Your task to perform on an android device: Open Reddit.com Image 0: 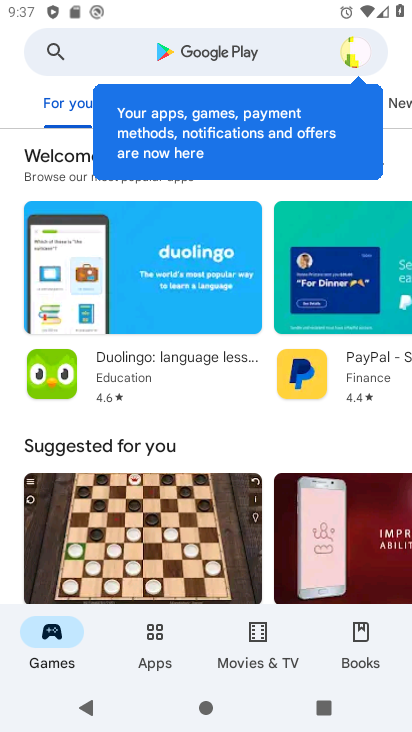
Step 0: press home button
Your task to perform on an android device: Open Reddit.com Image 1: 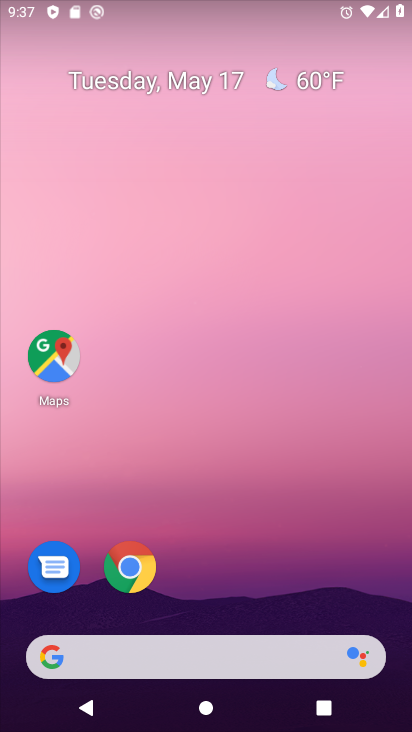
Step 1: drag from (192, 617) to (167, 233)
Your task to perform on an android device: Open Reddit.com Image 2: 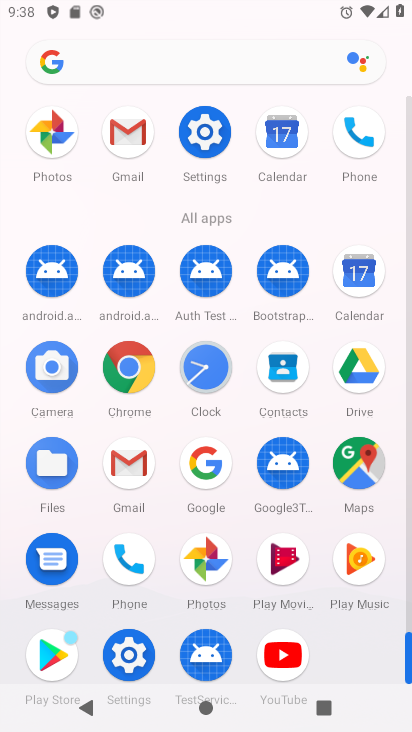
Step 2: click (139, 408)
Your task to perform on an android device: Open Reddit.com Image 3: 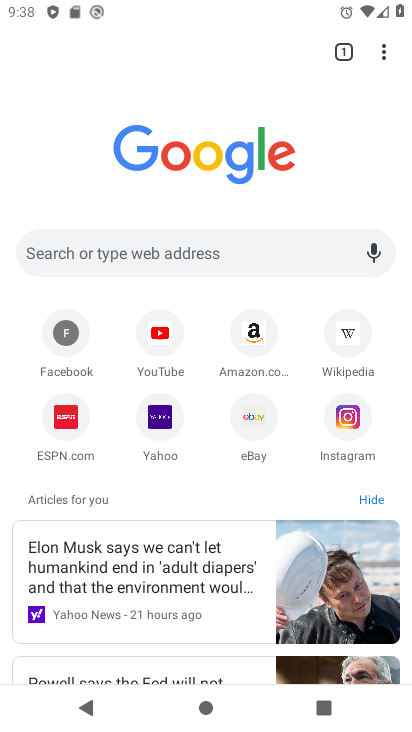
Step 3: click (159, 246)
Your task to perform on an android device: Open Reddit.com Image 4: 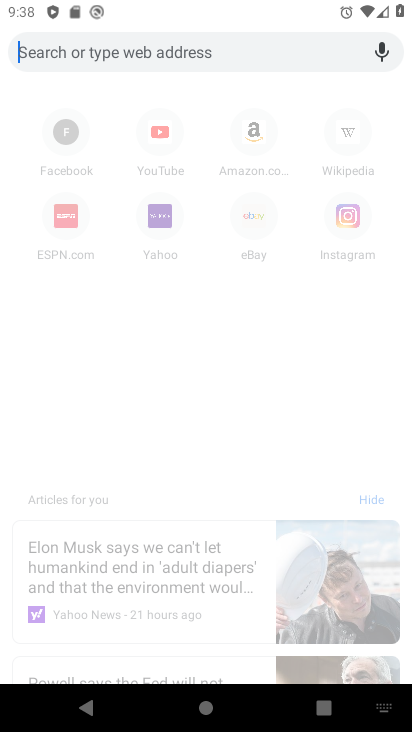
Step 4: type "www.reddit.com"
Your task to perform on an android device: Open Reddit.com Image 5: 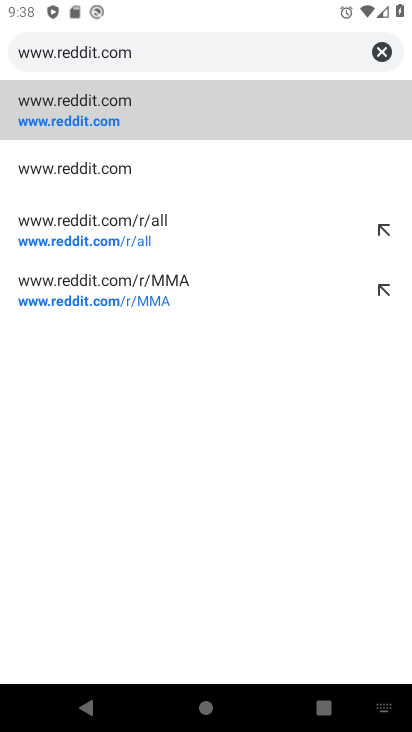
Step 5: click (105, 114)
Your task to perform on an android device: Open Reddit.com Image 6: 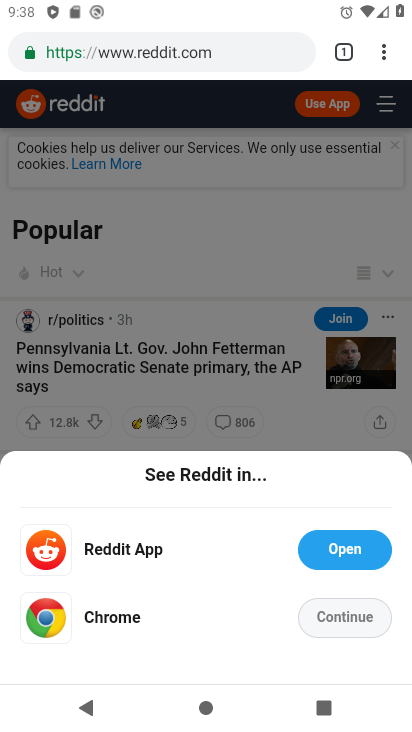
Step 6: click (342, 620)
Your task to perform on an android device: Open Reddit.com Image 7: 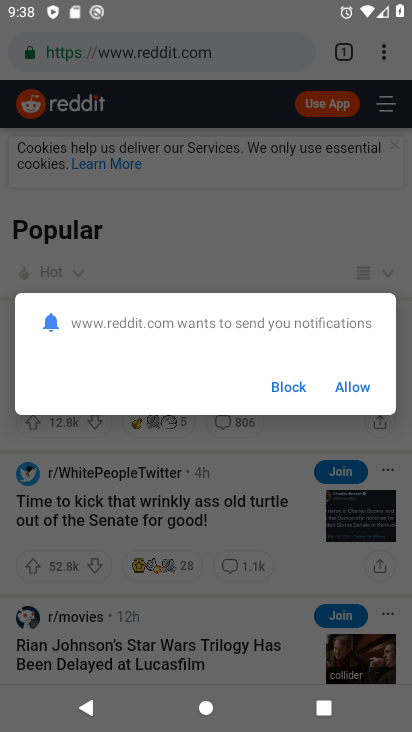
Step 7: click (289, 384)
Your task to perform on an android device: Open Reddit.com Image 8: 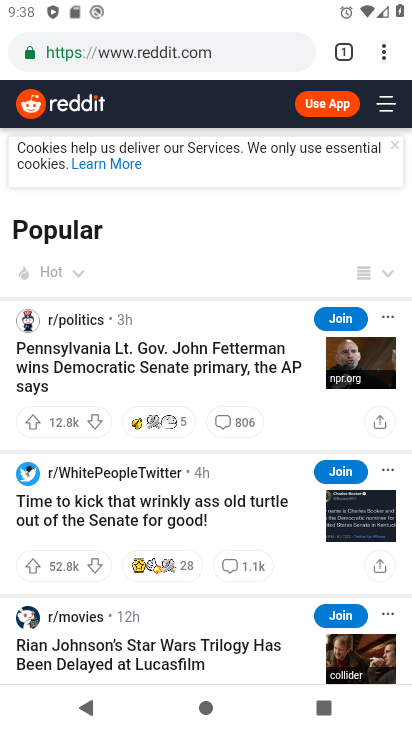
Step 8: task complete